Your task to perform on an android device: Go to Android settings Image 0: 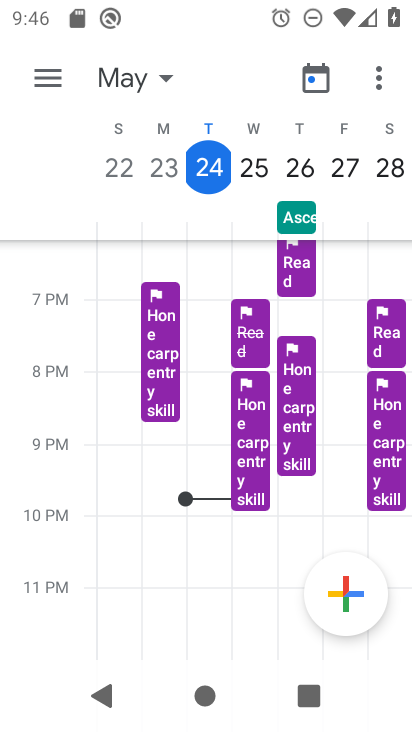
Step 0: press home button
Your task to perform on an android device: Go to Android settings Image 1: 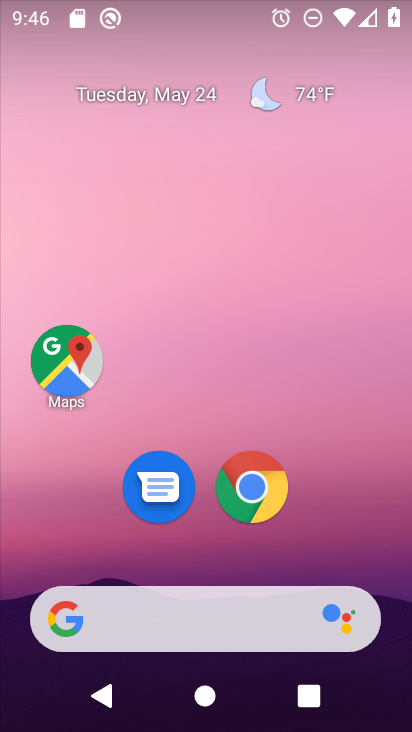
Step 1: drag from (350, 576) to (362, 15)
Your task to perform on an android device: Go to Android settings Image 2: 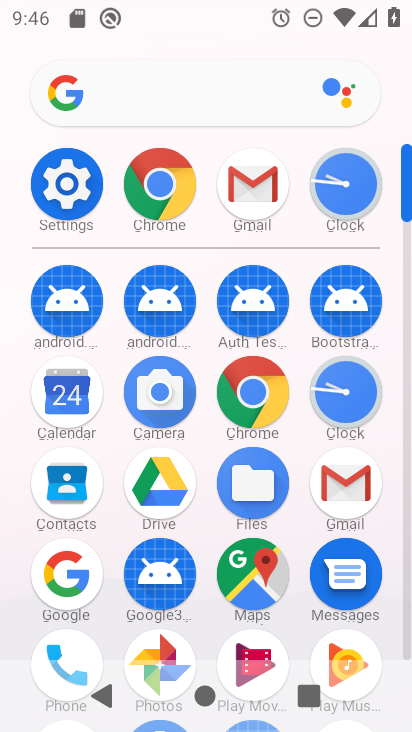
Step 2: click (71, 184)
Your task to perform on an android device: Go to Android settings Image 3: 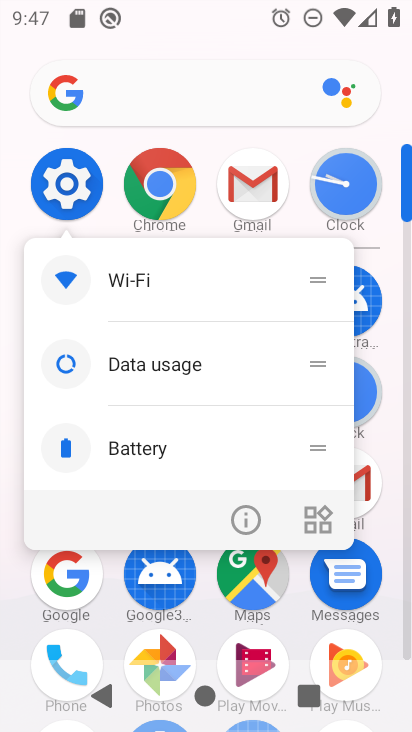
Step 3: click (66, 184)
Your task to perform on an android device: Go to Android settings Image 4: 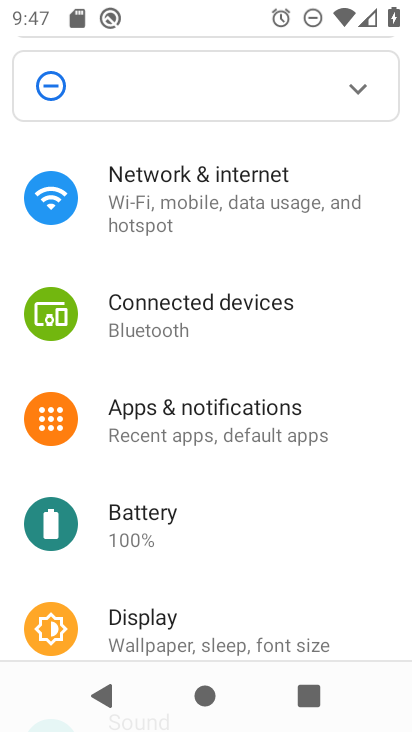
Step 4: task complete